Your task to perform on an android device: Go to notification settings Image 0: 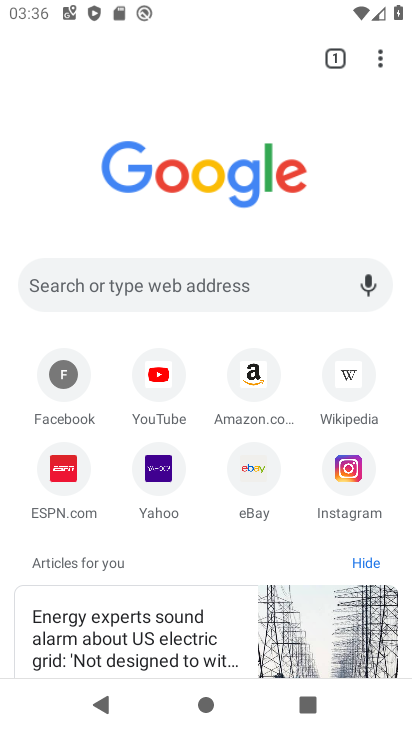
Step 0: press home button
Your task to perform on an android device: Go to notification settings Image 1: 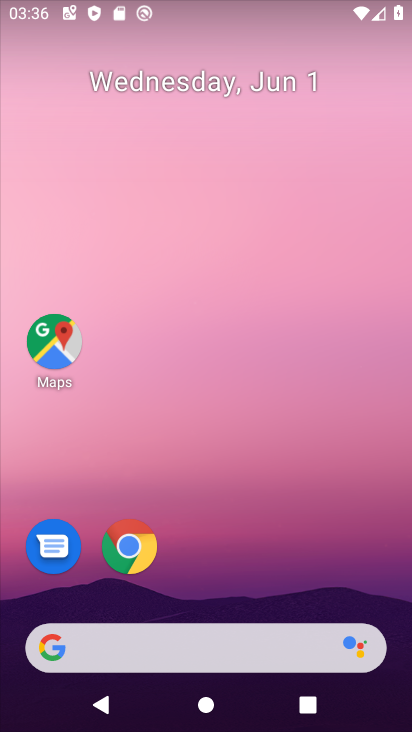
Step 1: drag from (306, 563) to (290, 42)
Your task to perform on an android device: Go to notification settings Image 2: 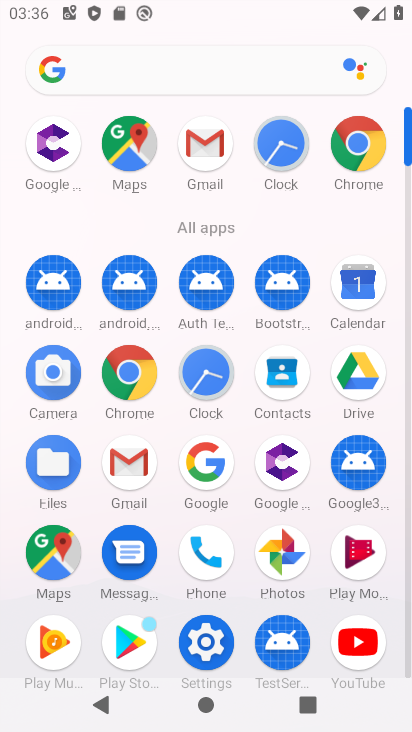
Step 2: drag from (303, 231) to (274, 6)
Your task to perform on an android device: Go to notification settings Image 3: 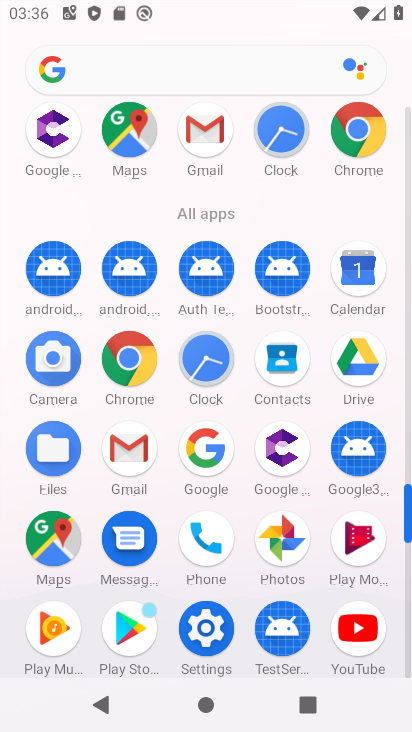
Step 3: click (211, 604)
Your task to perform on an android device: Go to notification settings Image 4: 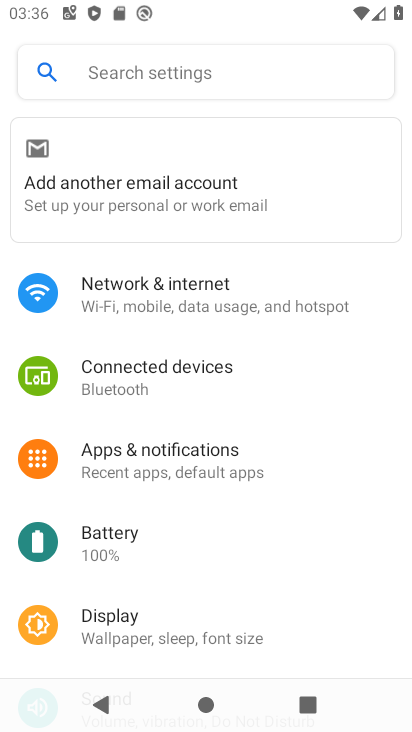
Step 4: click (212, 472)
Your task to perform on an android device: Go to notification settings Image 5: 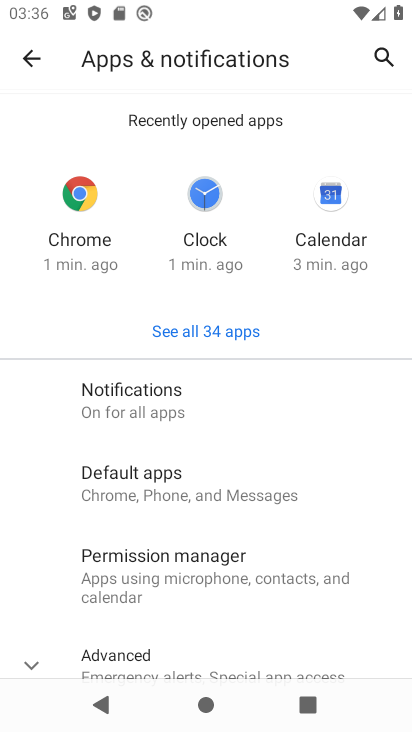
Step 5: click (52, 546)
Your task to perform on an android device: Go to notification settings Image 6: 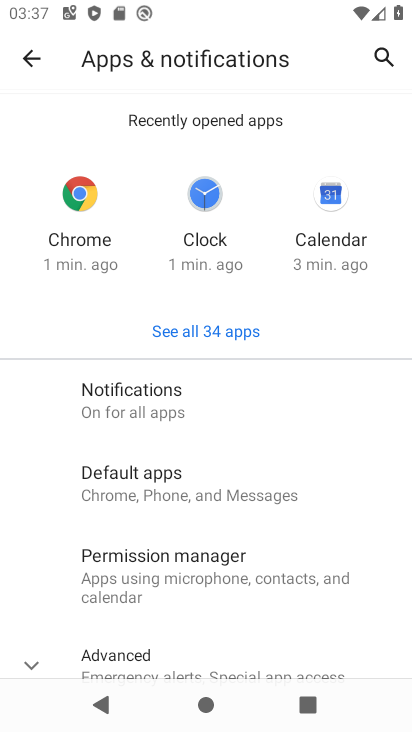
Step 6: click (197, 410)
Your task to perform on an android device: Go to notification settings Image 7: 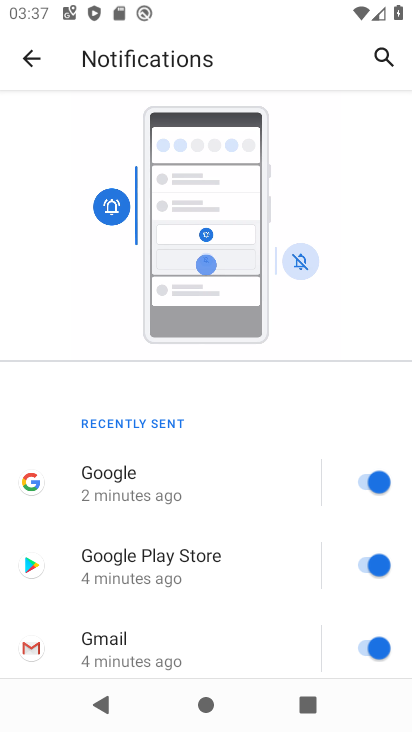
Step 7: task complete